Your task to perform on an android device: delete the emails in spam in the gmail app Image 0: 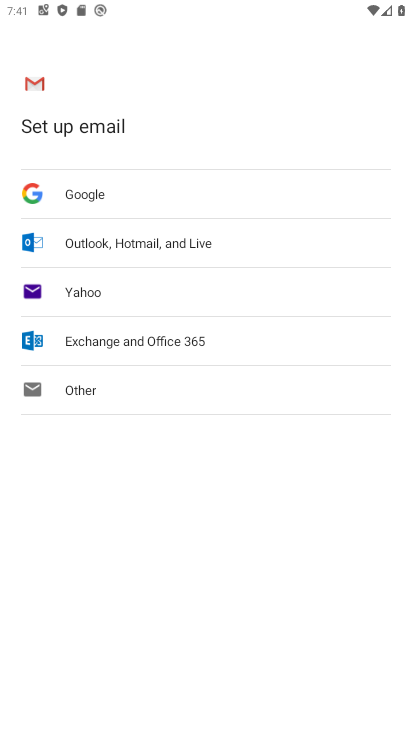
Step 0: press home button
Your task to perform on an android device: delete the emails in spam in the gmail app Image 1: 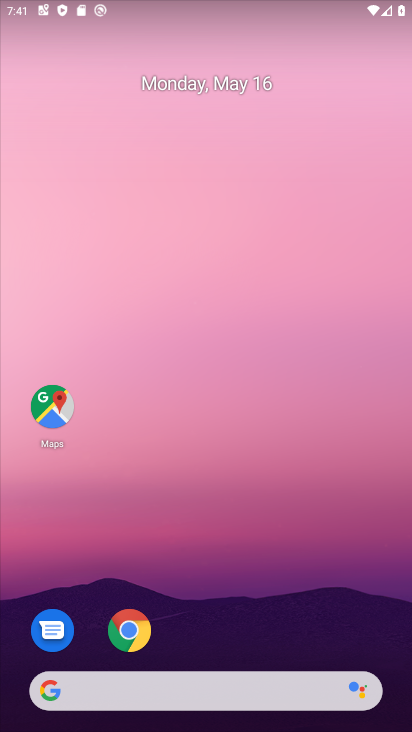
Step 1: drag from (244, 597) to (268, 121)
Your task to perform on an android device: delete the emails in spam in the gmail app Image 2: 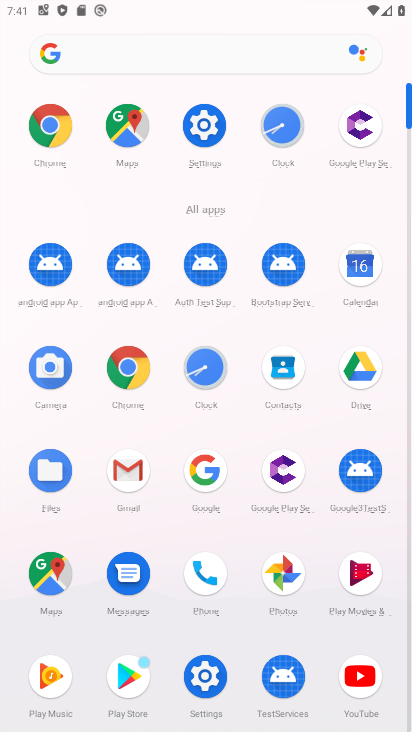
Step 2: click (125, 493)
Your task to perform on an android device: delete the emails in spam in the gmail app Image 3: 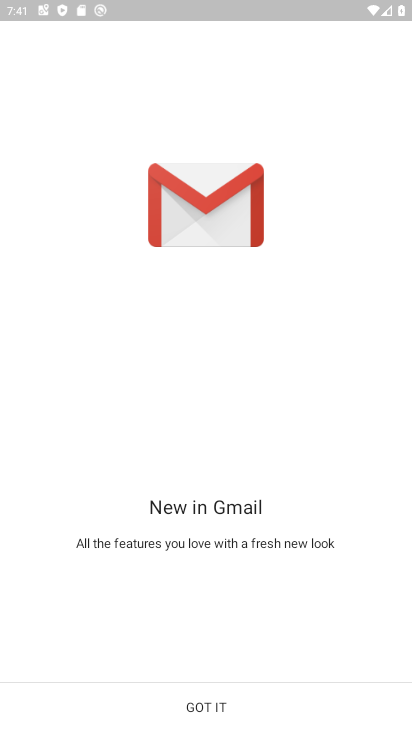
Step 3: task complete